Your task to perform on an android device: Go to sound settings Image 0: 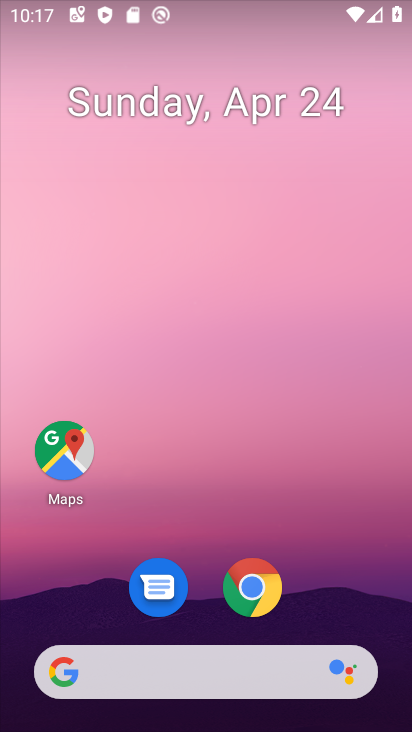
Step 0: drag from (353, 566) to (281, 11)
Your task to perform on an android device: Go to sound settings Image 1: 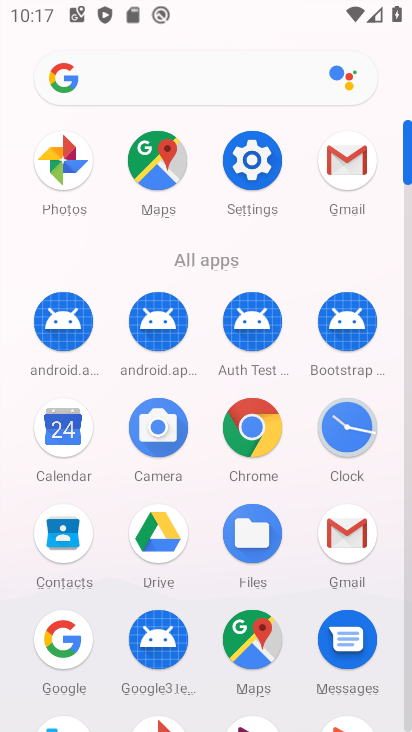
Step 1: click (263, 173)
Your task to perform on an android device: Go to sound settings Image 2: 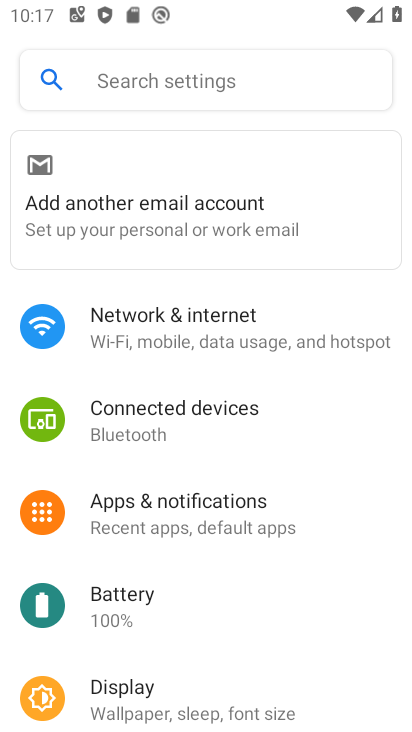
Step 2: drag from (231, 661) to (214, 286)
Your task to perform on an android device: Go to sound settings Image 3: 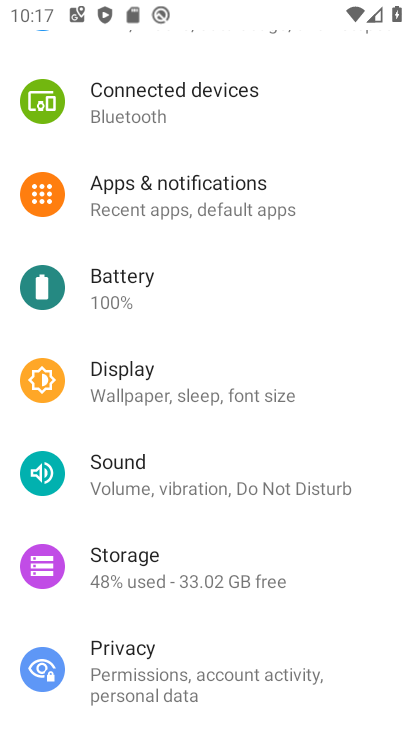
Step 3: click (95, 480)
Your task to perform on an android device: Go to sound settings Image 4: 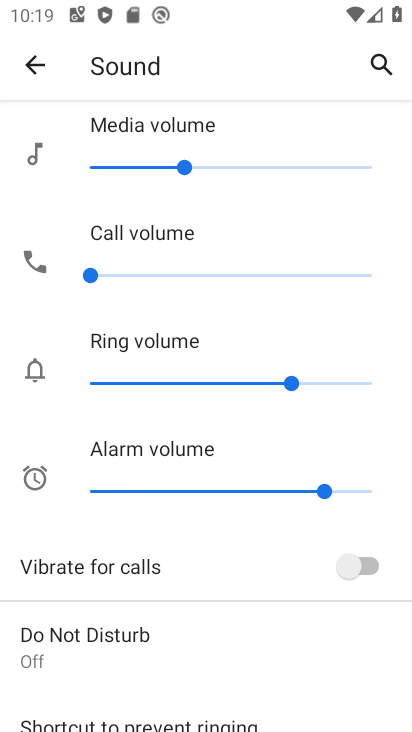
Step 4: task complete